Your task to perform on an android device: turn on javascript in the chrome app Image 0: 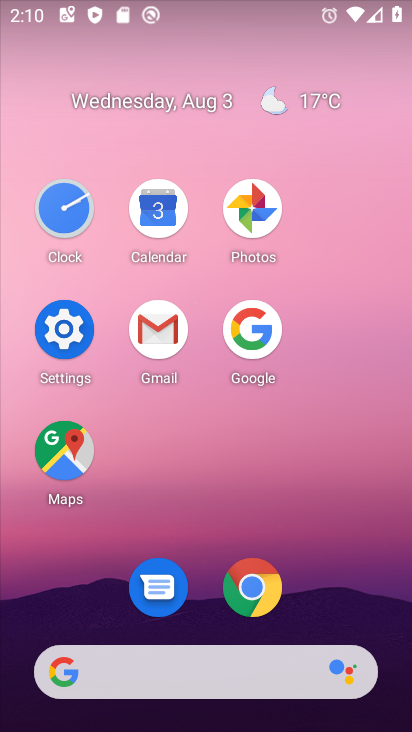
Step 0: click (273, 586)
Your task to perform on an android device: turn on javascript in the chrome app Image 1: 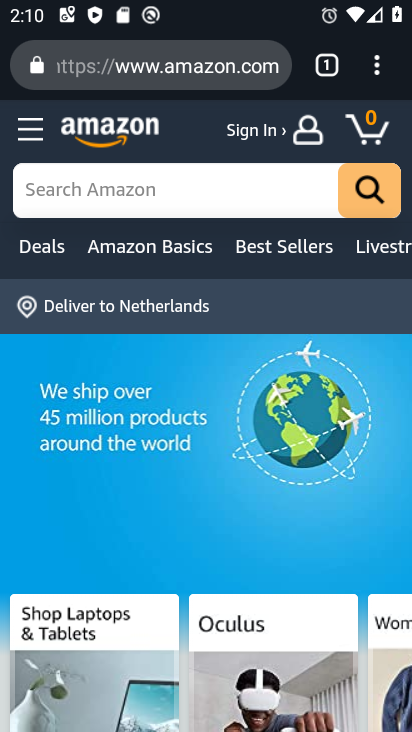
Step 1: click (368, 65)
Your task to perform on an android device: turn on javascript in the chrome app Image 2: 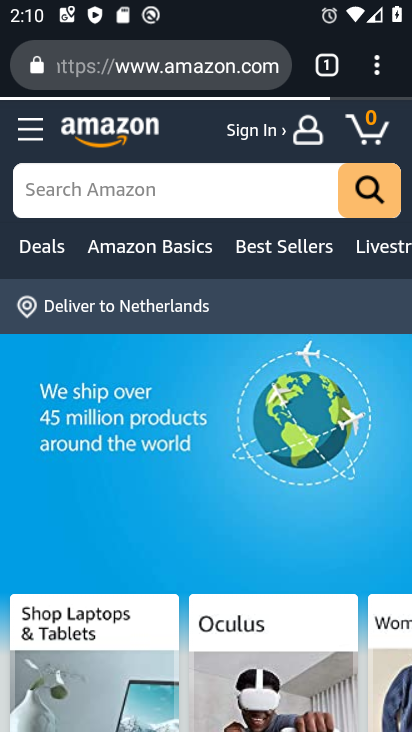
Step 2: click (391, 76)
Your task to perform on an android device: turn on javascript in the chrome app Image 3: 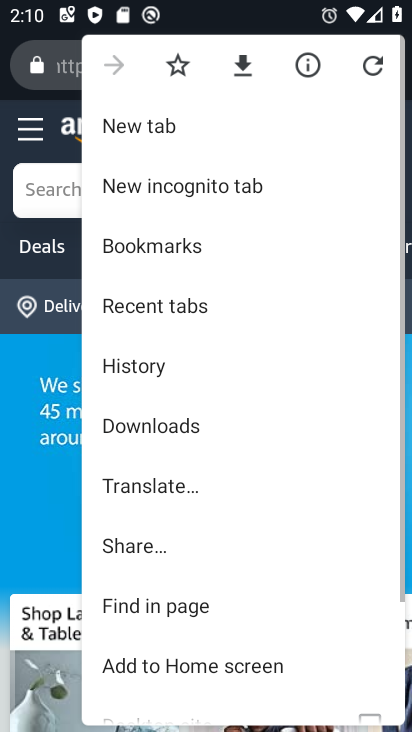
Step 3: drag from (285, 483) to (278, 270)
Your task to perform on an android device: turn on javascript in the chrome app Image 4: 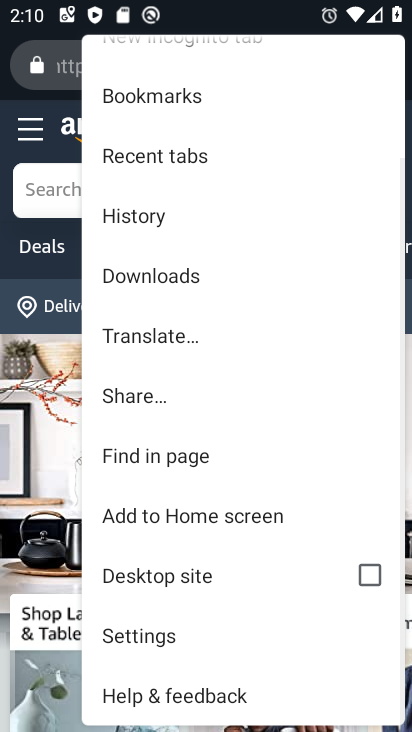
Step 4: click (169, 651)
Your task to perform on an android device: turn on javascript in the chrome app Image 5: 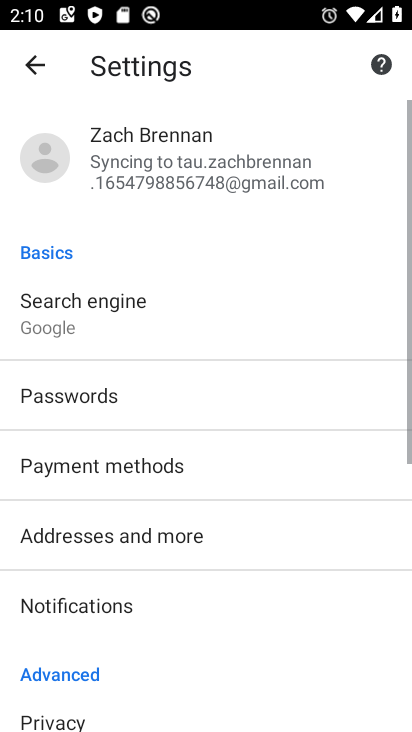
Step 5: drag from (228, 516) to (260, 119)
Your task to perform on an android device: turn on javascript in the chrome app Image 6: 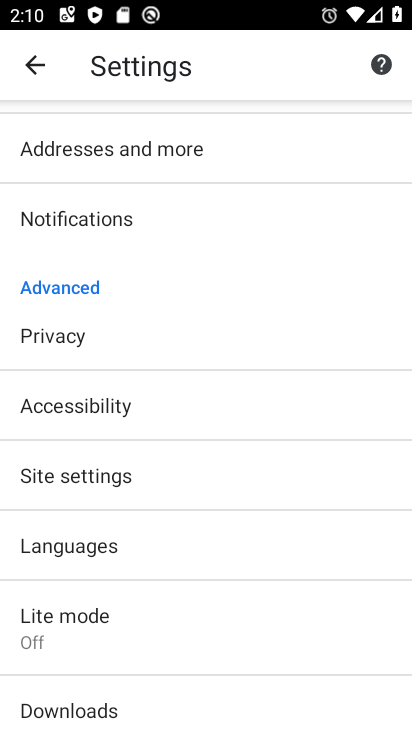
Step 6: click (189, 495)
Your task to perform on an android device: turn on javascript in the chrome app Image 7: 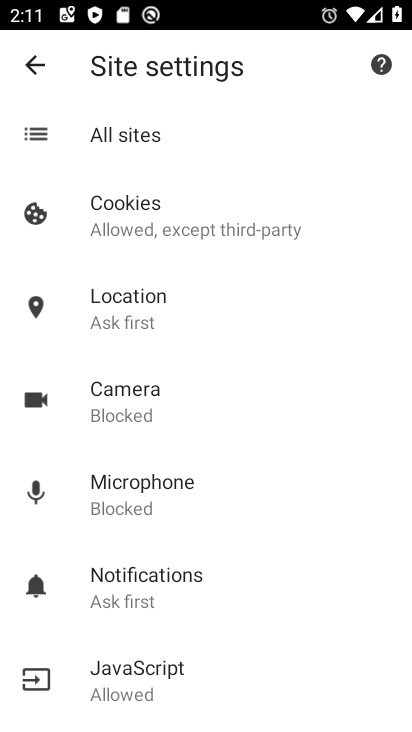
Step 7: click (205, 671)
Your task to perform on an android device: turn on javascript in the chrome app Image 8: 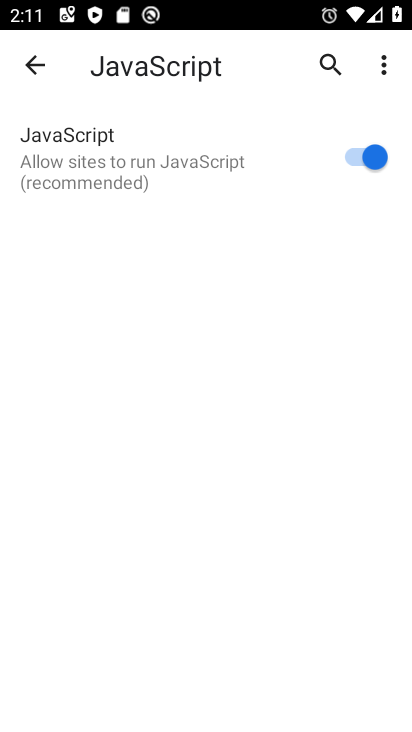
Step 8: task complete